Your task to perform on an android device: Go to CNN.com Image 0: 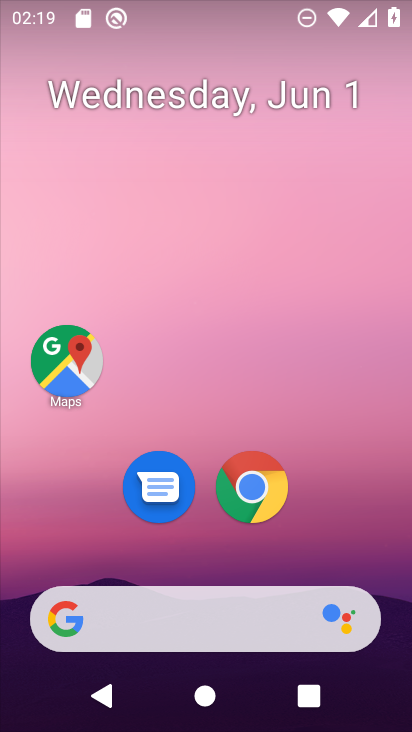
Step 0: click (239, 475)
Your task to perform on an android device: Go to CNN.com Image 1: 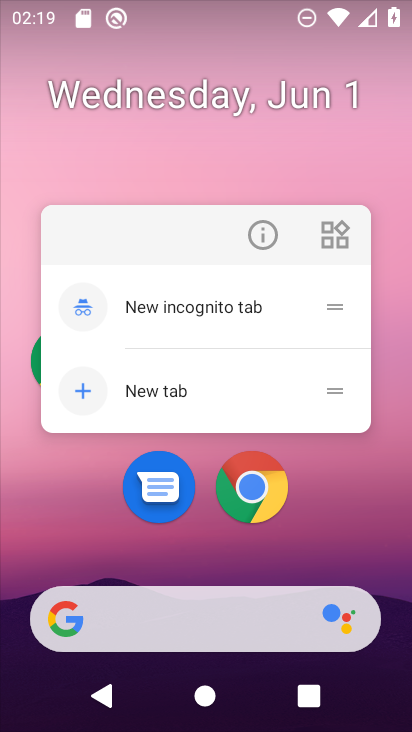
Step 1: click (251, 462)
Your task to perform on an android device: Go to CNN.com Image 2: 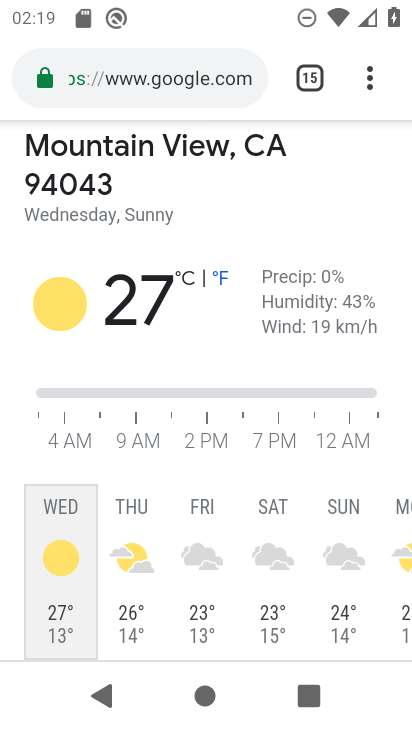
Step 2: click (355, 70)
Your task to perform on an android device: Go to CNN.com Image 3: 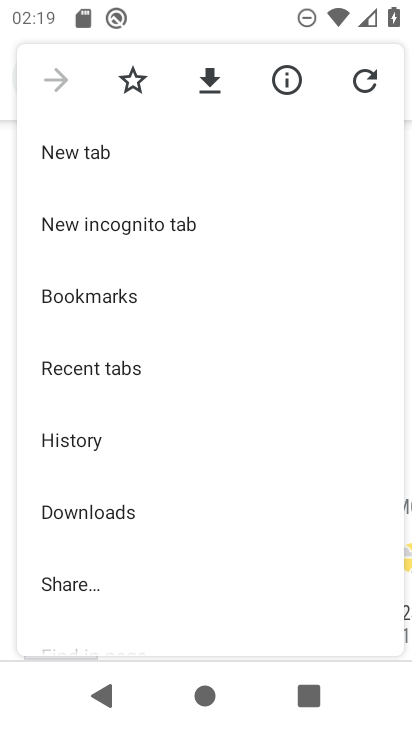
Step 3: click (118, 151)
Your task to perform on an android device: Go to CNN.com Image 4: 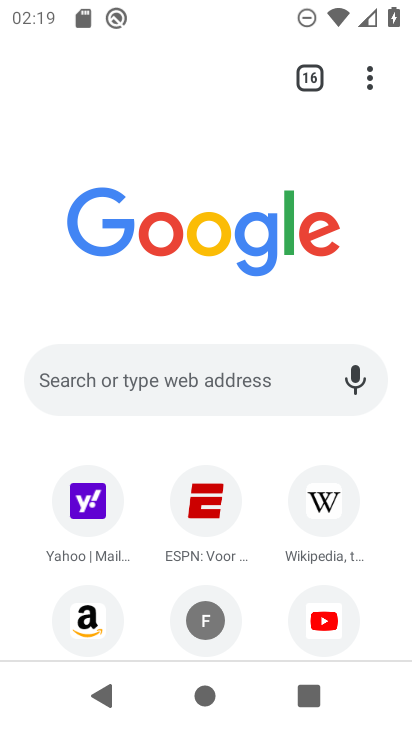
Step 4: click (233, 390)
Your task to perform on an android device: Go to CNN.com Image 5: 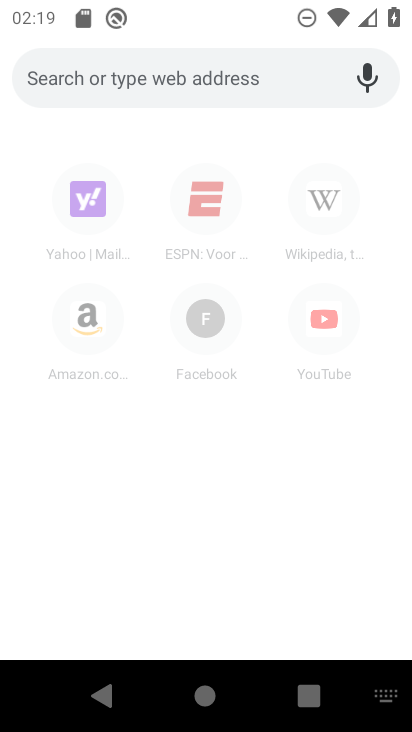
Step 5: type " CNN.com"
Your task to perform on an android device: Go to CNN.com Image 6: 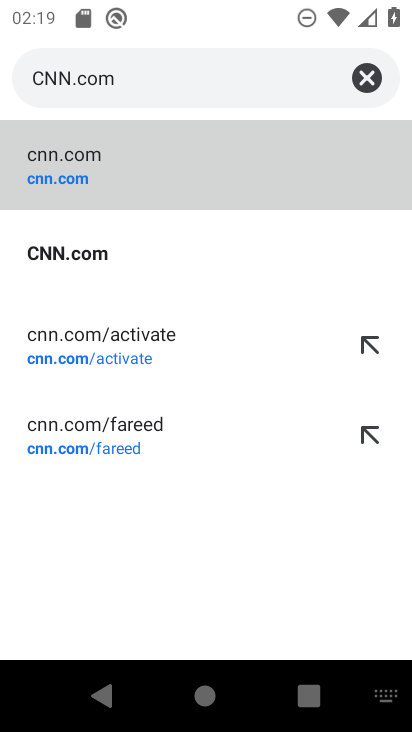
Step 6: click (269, 153)
Your task to perform on an android device: Go to CNN.com Image 7: 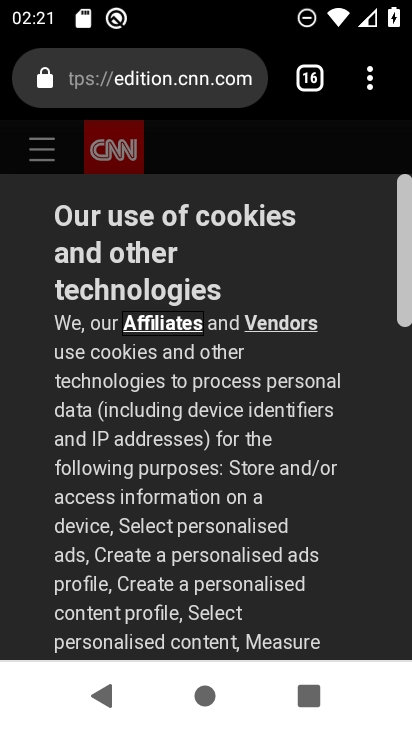
Step 7: task complete